Your task to perform on an android device: check storage Image 0: 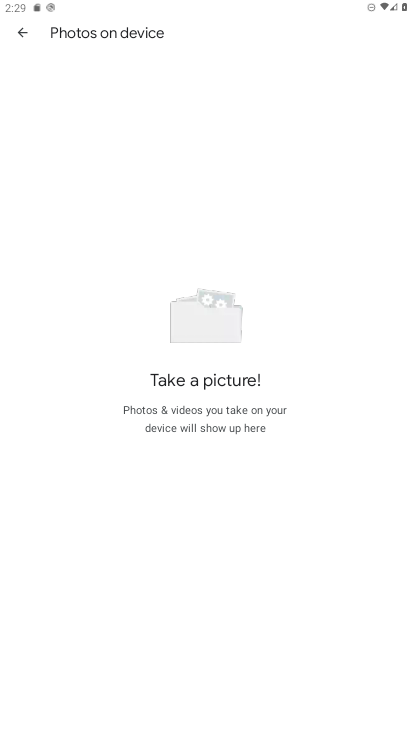
Step 0: press home button
Your task to perform on an android device: check storage Image 1: 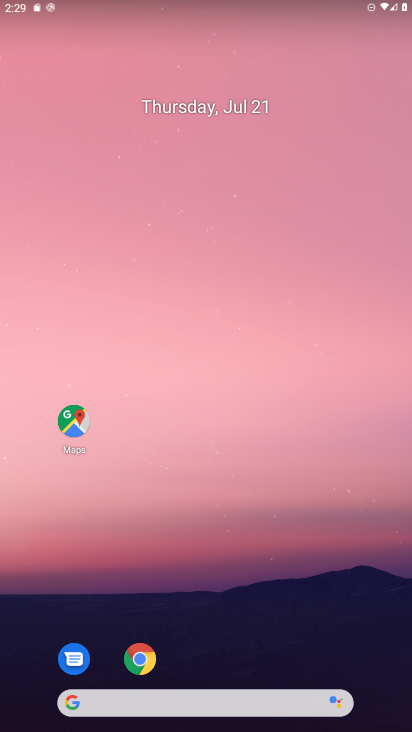
Step 1: drag from (79, 527) to (266, 170)
Your task to perform on an android device: check storage Image 2: 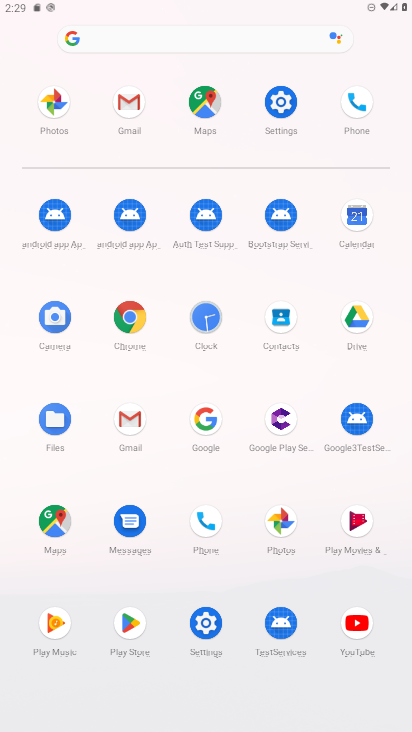
Step 2: click (279, 115)
Your task to perform on an android device: check storage Image 3: 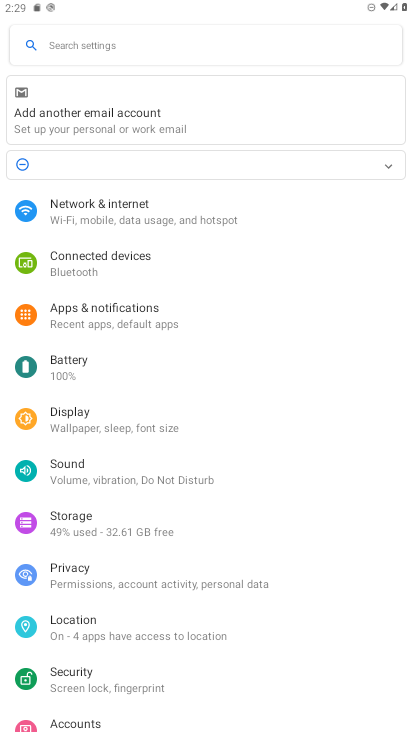
Step 3: click (80, 527)
Your task to perform on an android device: check storage Image 4: 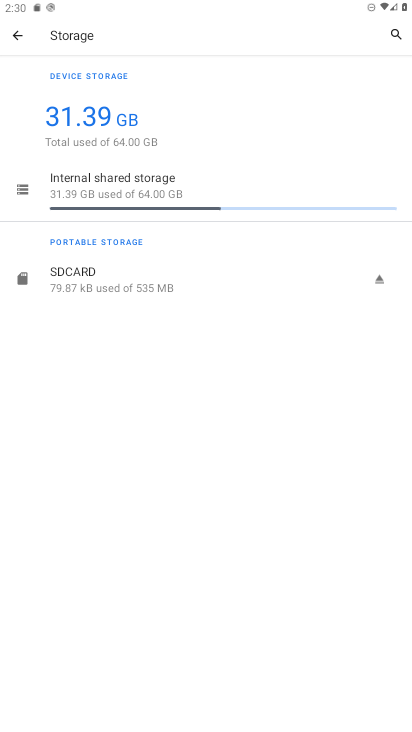
Step 4: task complete